Your task to perform on an android device: Go to calendar. Show me events next week Image 0: 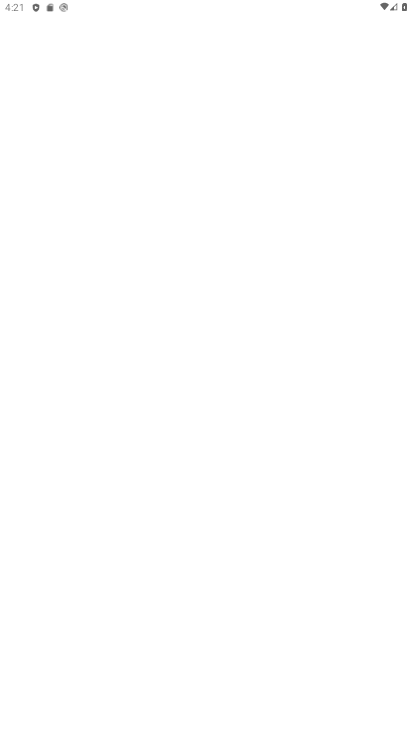
Step 0: press home button
Your task to perform on an android device: Go to calendar. Show me events next week Image 1: 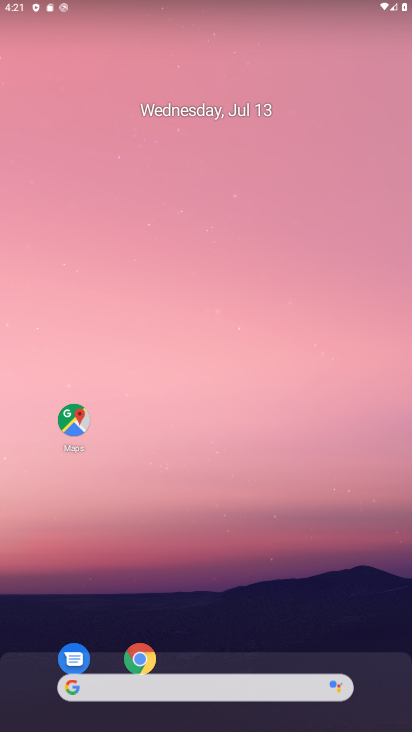
Step 1: drag from (285, 662) to (290, 176)
Your task to perform on an android device: Go to calendar. Show me events next week Image 2: 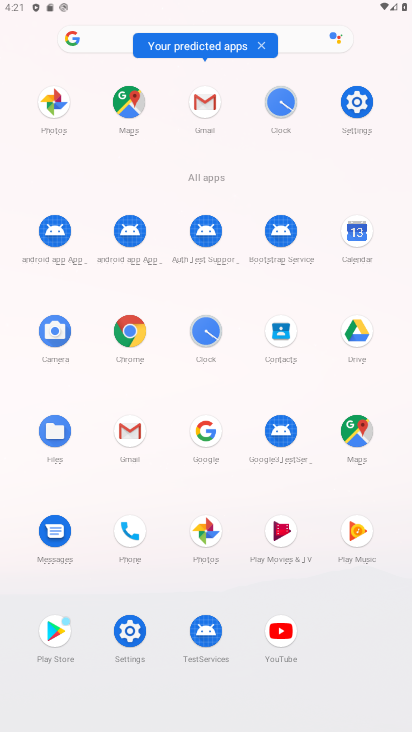
Step 2: click (348, 231)
Your task to perform on an android device: Go to calendar. Show me events next week Image 3: 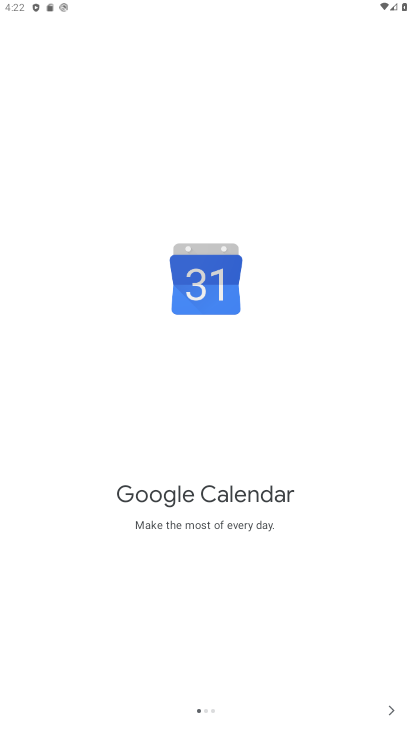
Step 3: click (393, 706)
Your task to perform on an android device: Go to calendar. Show me events next week Image 4: 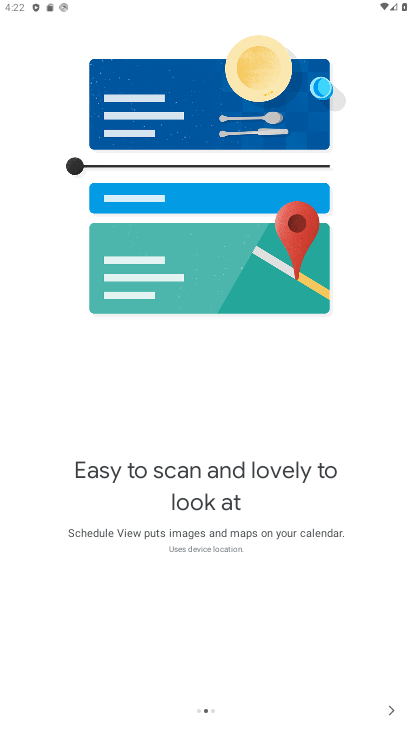
Step 4: click (393, 709)
Your task to perform on an android device: Go to calendar. Show me events next week Image 5: 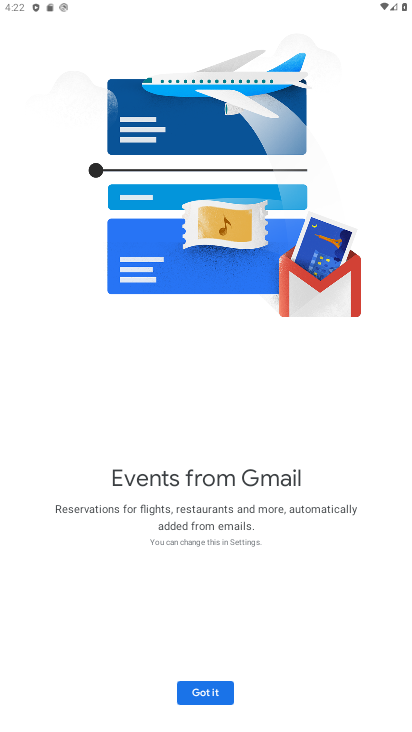
Step 5: click (211, 688)
Your task to perform on an android device: Go to calendar. Show me events next week Image 6: 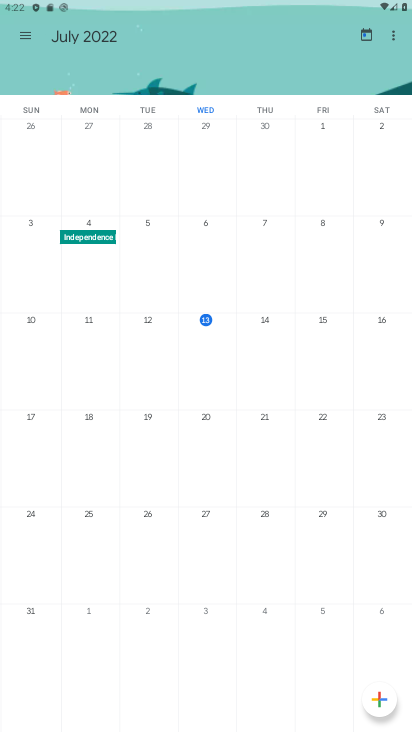
Step 6: click (151, 418)
Your task to perform on an android device: Go to calendar. Show me events next week Image 7: 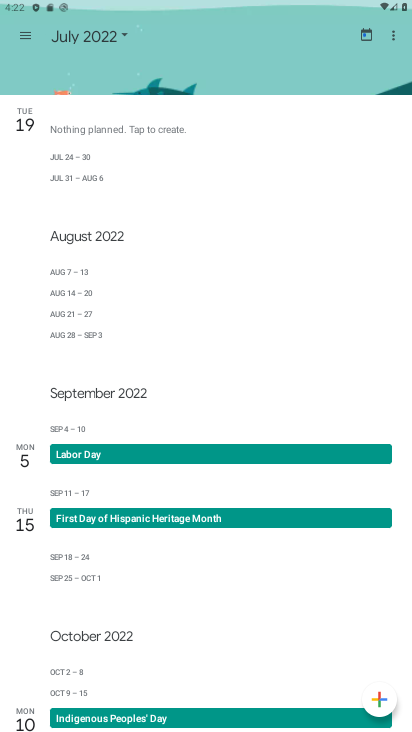
Step 7: click (20, 35)
Your task to perform on an android device: Go to calendar. Show me events next week Image 8: 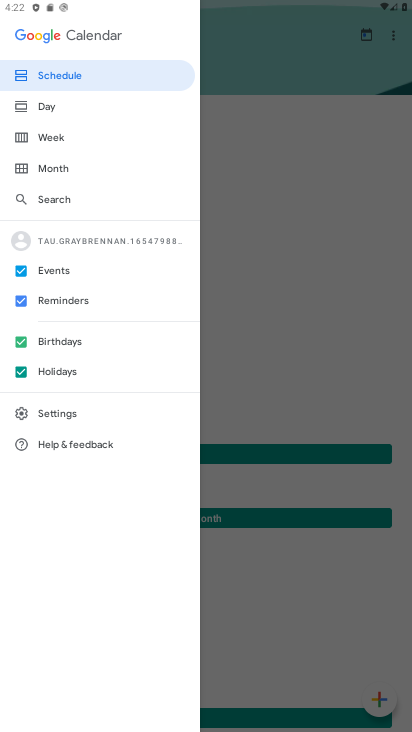
Step 8: click (58, 131)
Your task to perform on an android device: Go to calendar. Show me events next week Image 9: 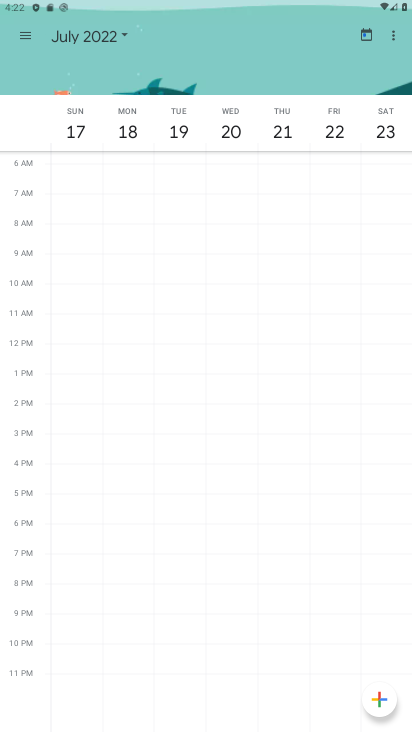
Step 9: task complete